Your task to perform on an android device: change alarm snooze length Image 0: 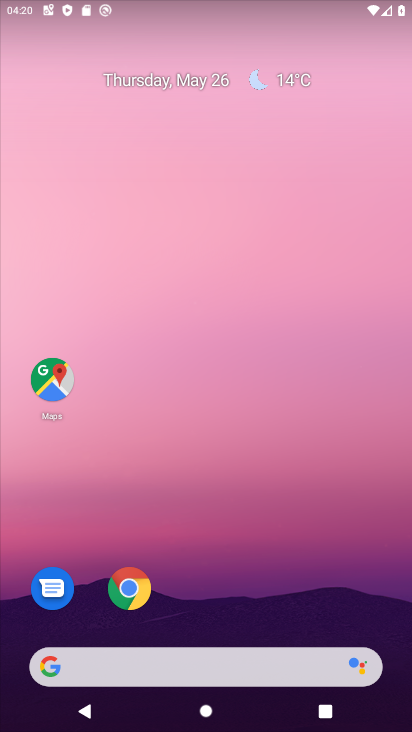
Step 0: drag from (290, 584) to (293, 121)
Your task to perform on an android device: change alarm snooze length Image 1: 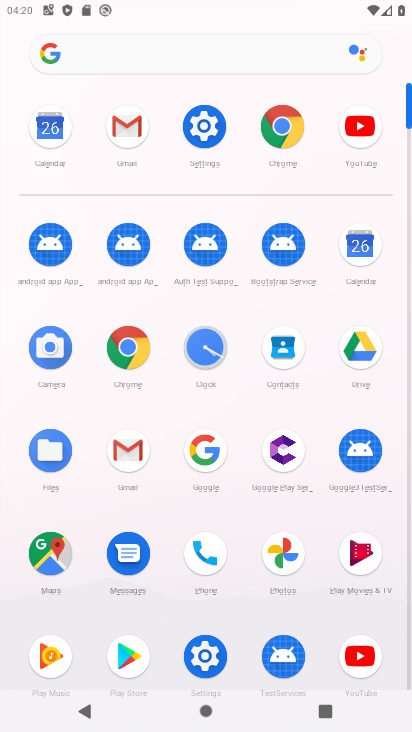
Step 1: click (208, 346)
Your task to perform on an android device: change alarm snooze length Image 2: 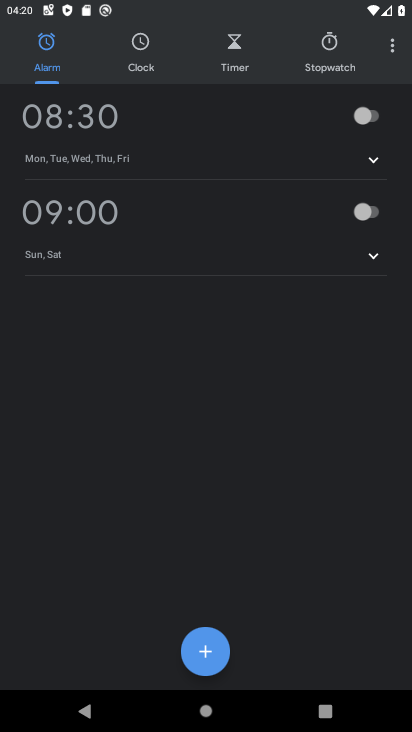
Step 2: click (395, 55)
Your task to perform on an android device: change alarm snooze length Image 3: 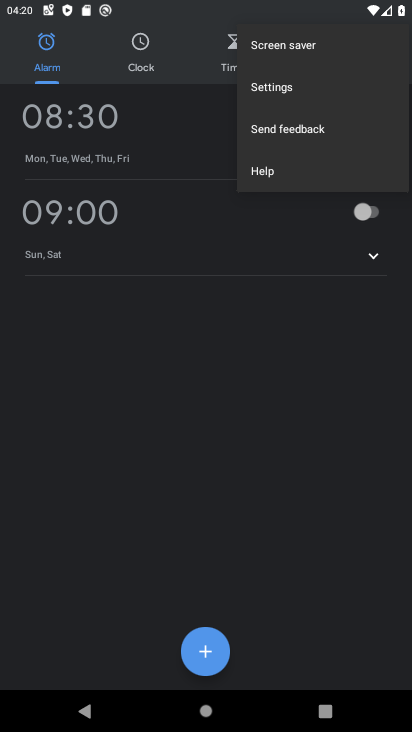
Step 3: click (282, 102)
Your task to perform on an android device: change alarm snooze length Image 4: 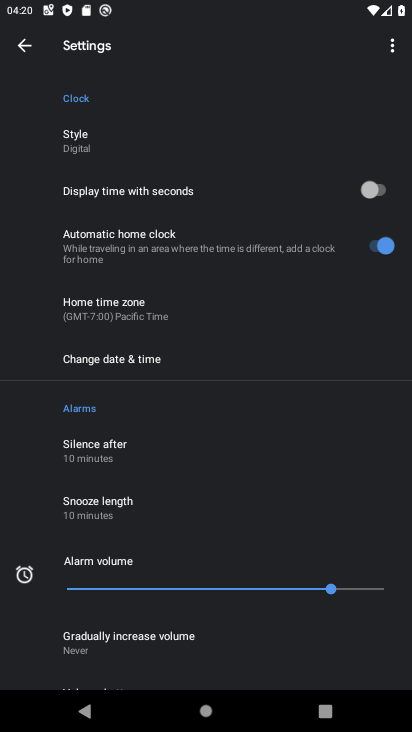
Step 4: click (135, 494)
Your task to perform on an android device: change alarm snooze length Image 5: 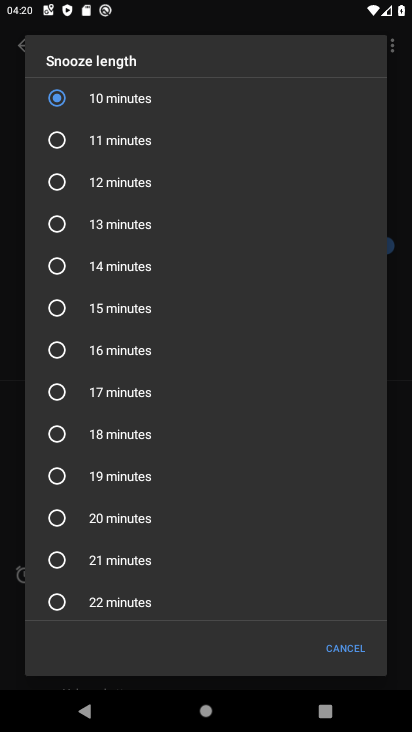
Step 5: click (174, 218)
Your task to perform on an android device: change alarm snooze length Image 6: 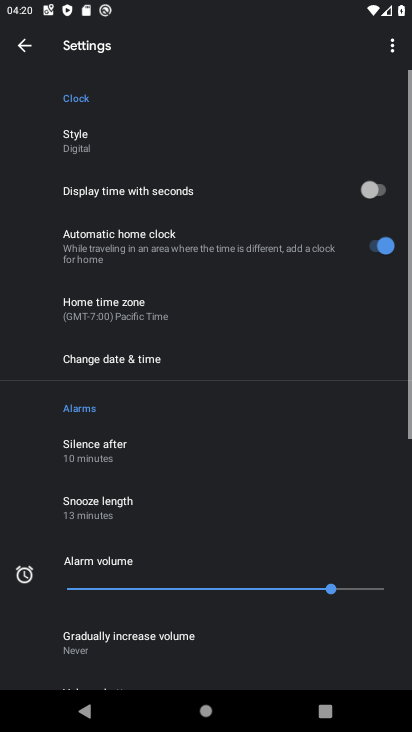
Step 6: task complete